Your task to perform on an android device: Open the calendar and show me this week's events? Image 0: 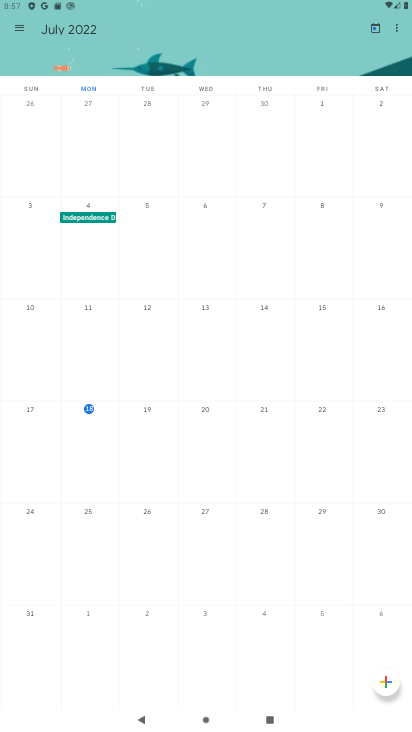
Step 0: click (17, 24)
Your task to perform on an android device: Open the calendar and show me this week's events? Image 1: 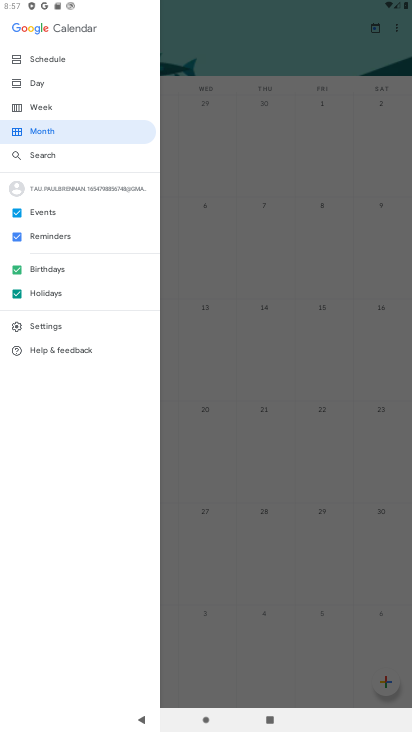
Step 1: click (51, 105)
Your task to perform on an android device: Open the calendar and show me this week's events? Image 2: 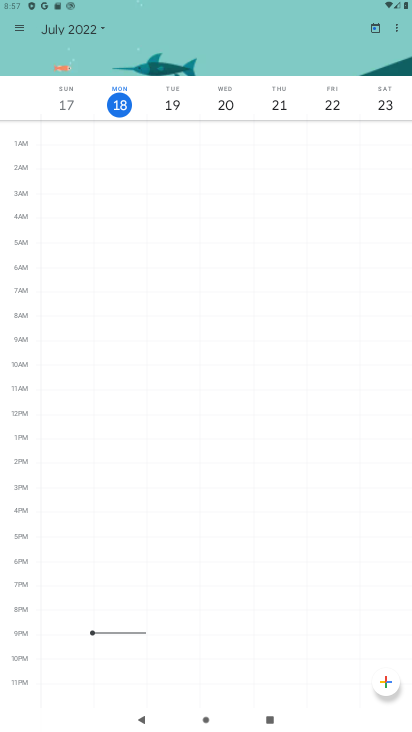
Step 2: task complete